Your task to perform on an android device: Search for the best rated 150-piece drill bit set on Aliexpress. Image 0: 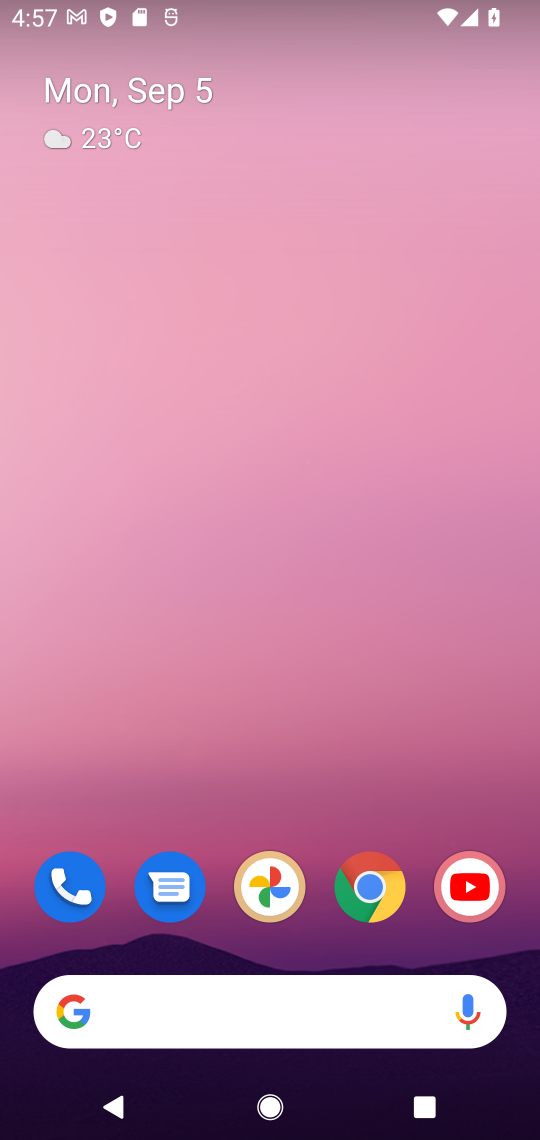
Step 0: drag from (273, 991) to (200, 298)
Your task to perform on an android device: Search for the best rated 150-piece drill bit set on Aliexpress. Image 1: 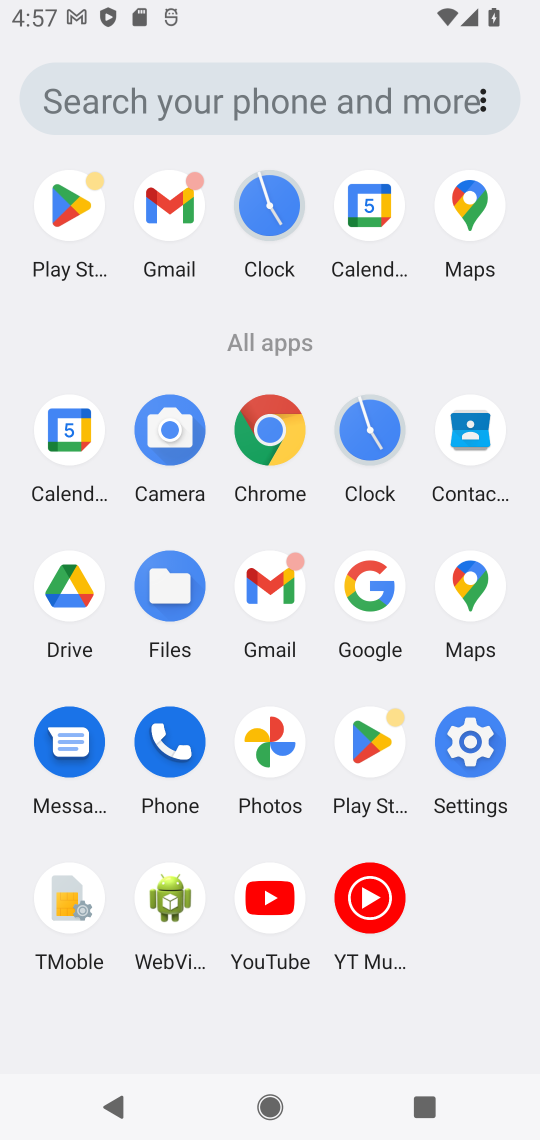
Step 1: click (362, 597)
Your task to perform on an android device: Search for the best rated 150-piece drill bit set on Aliexpress. Image 2: 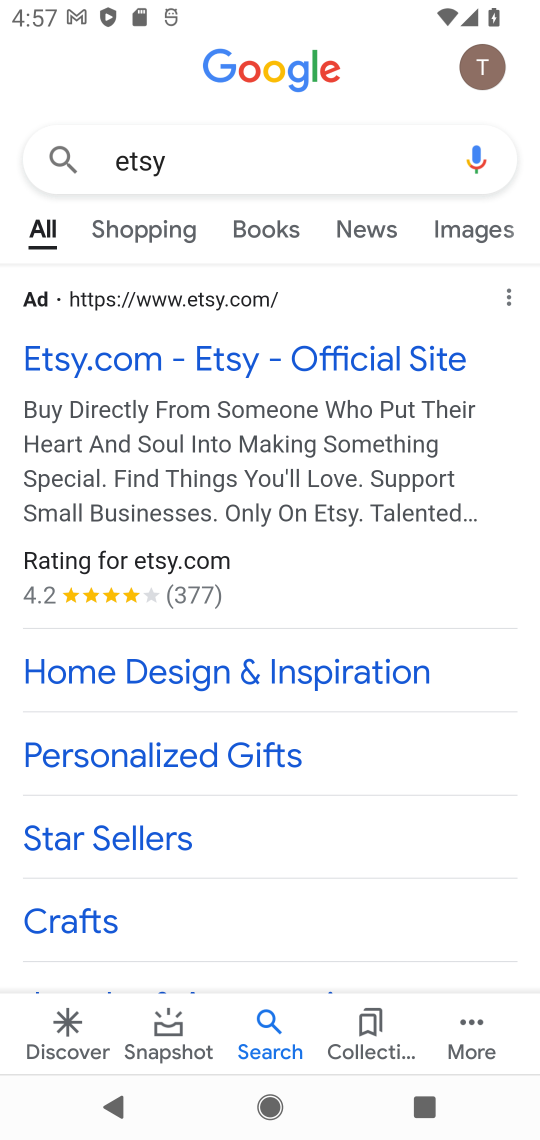
Step 2: click (184, 159)
Your task to perform on an android device: Search for the best rated 150-piece drill bit set on Aliexpress. Image 3: 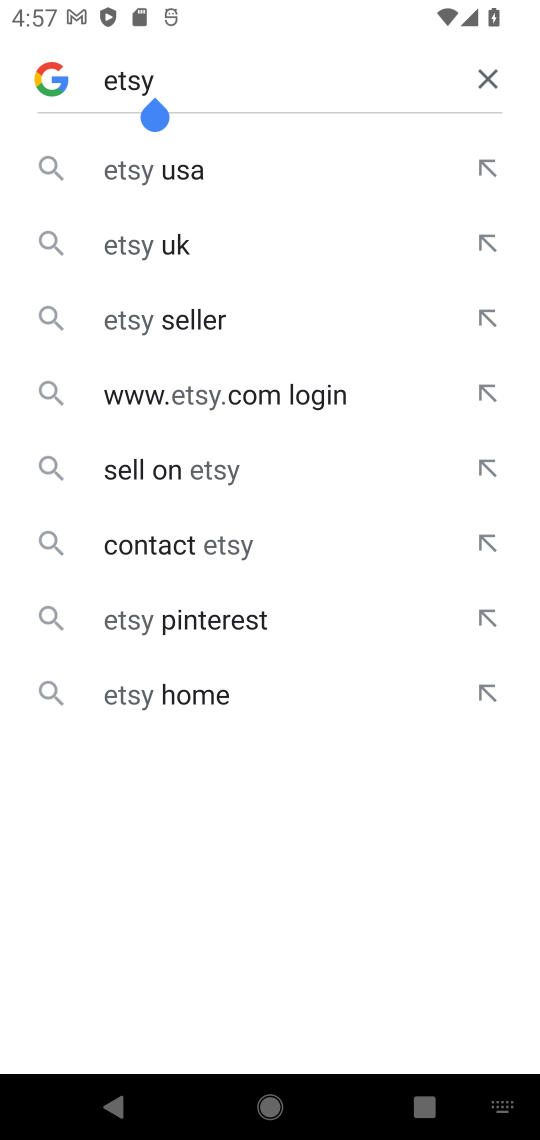
Step 3: click (494, 80)
Your task to perform on an android device: Search for the best rated 150-piece drill bit set on Aliexpress. Image 4: 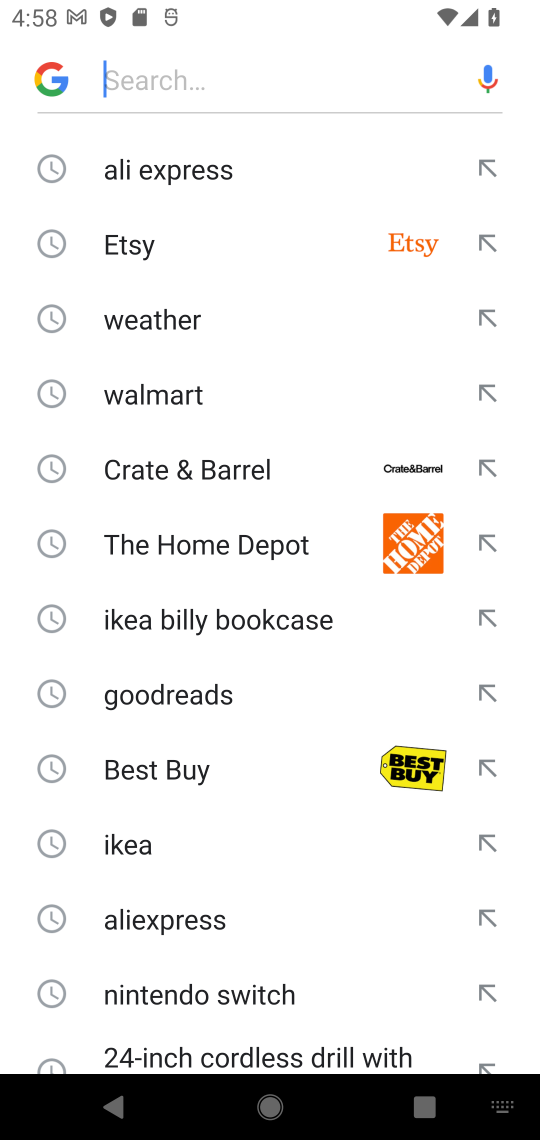
Step 4: type "Aliexpress"
Your task to perform on an android device: Search for the best rated 150-piece drill bit set on Aliexpress. Image 5: 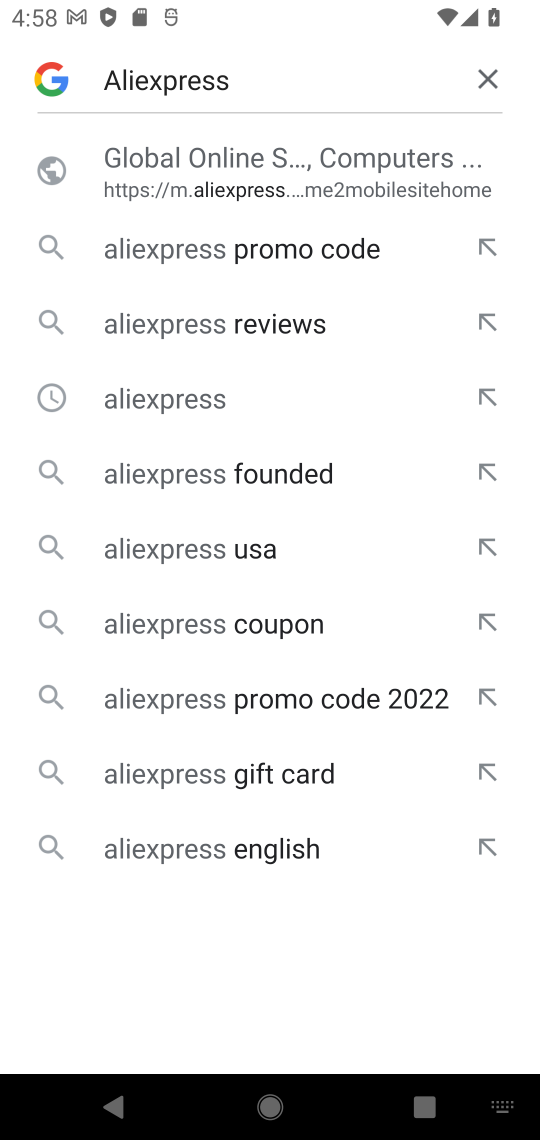
Step 5: click (170, 407)
Your task to perform on an android device: Search for the best rated 150-piece drill bit set on Aliexpress. Image 6: 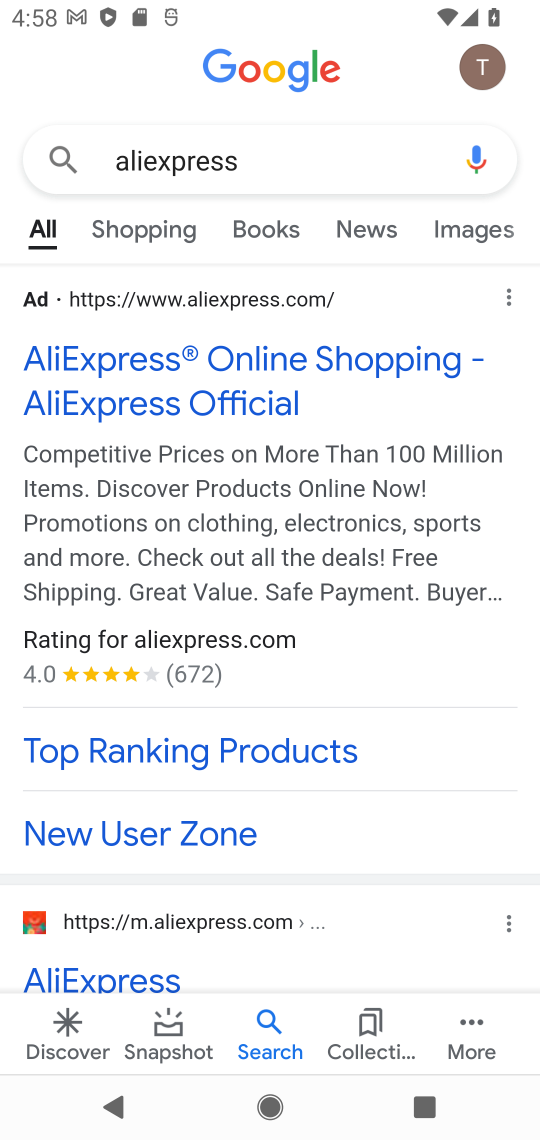
Step 6: click (205, 390)
Your task to perform on an android device: Search for the best rated 150-piece drill bit set on Aliexpress. Image 7: 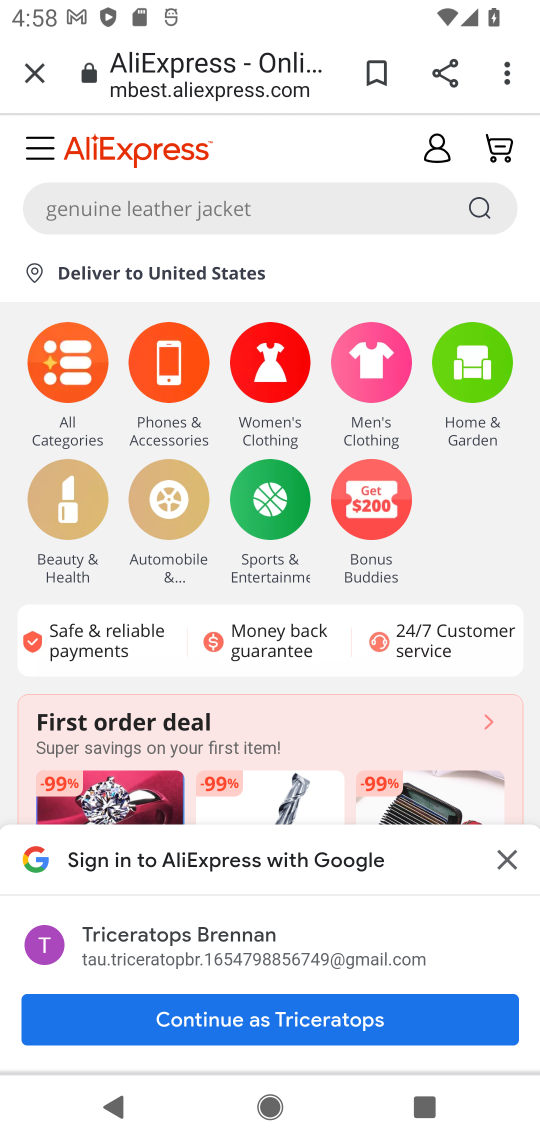
Step 7: click (119, 223)
Your task to perform on an android device: Search for the best rated 150-piece drill bit set on Aliexpress. Image 8: 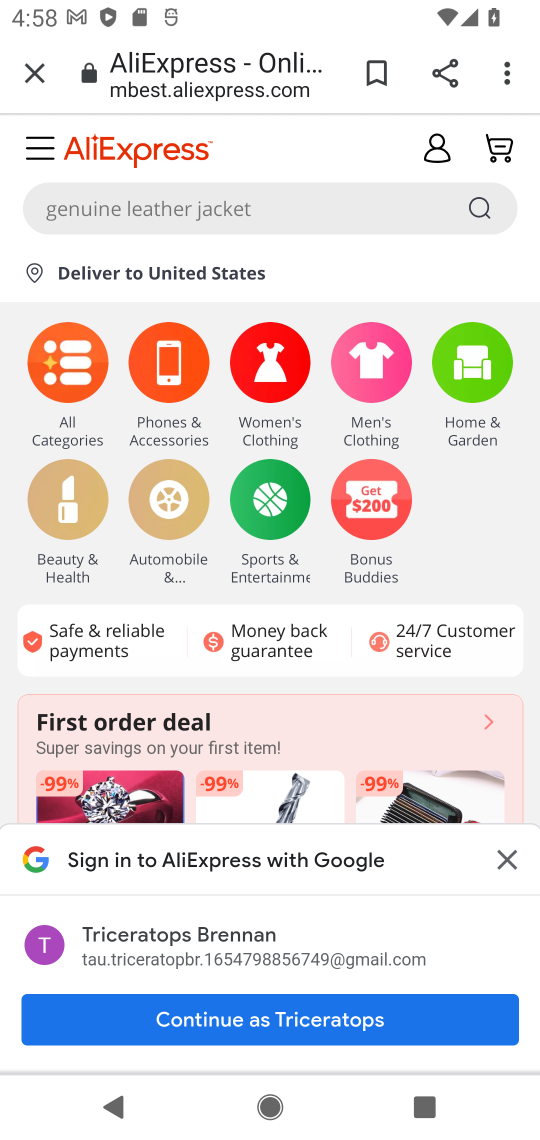
Step 8: click (474, 213)
Your task to perform on an android device: Search for the best rated 150-piece drill bit set on Aliexpress. Image 9: 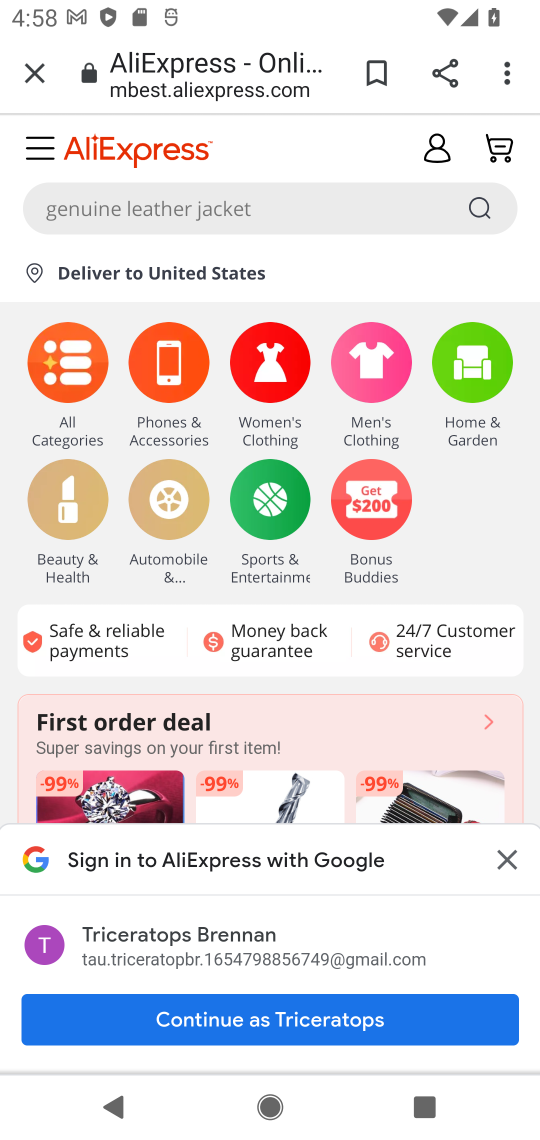
Step 9: click (489, 202)
Your task to perform on an android device: Search for the best rated 150-piece drill bit set on Aliexpress. Image 10: 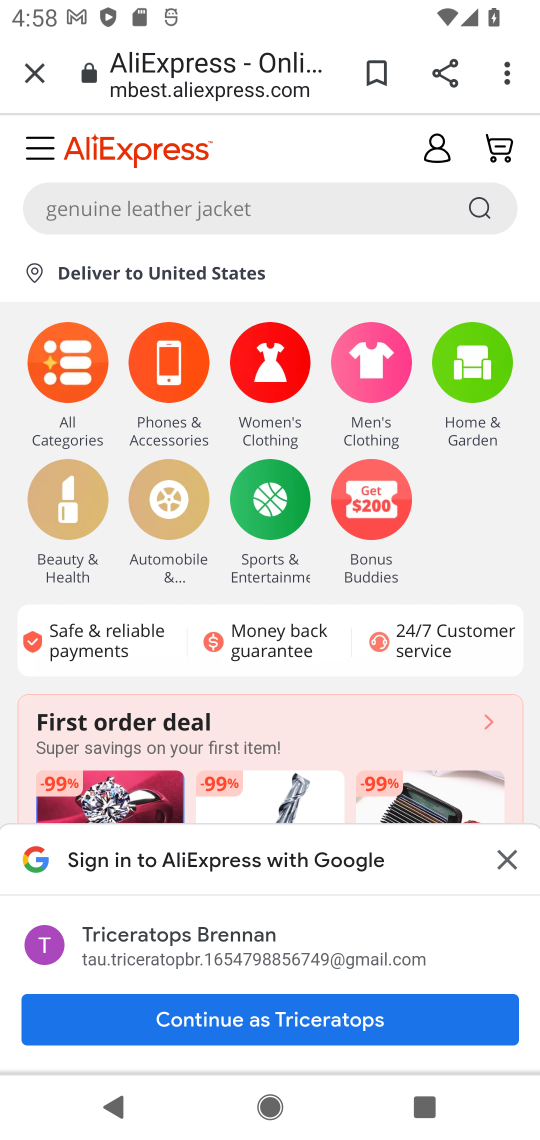
Step 10: click (479, 211)
Your task to perform on an android device: Search for the best rated 150-piece drill bit set on Aliexpress. Image 11: 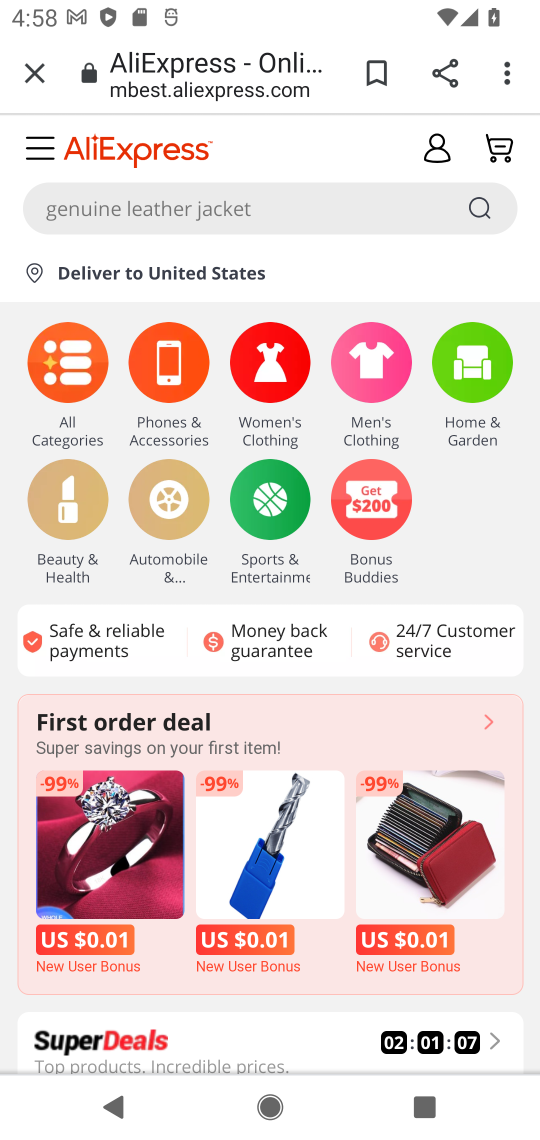
Step 11: type "best rated 150-piece drill bit set "
Your task to perform on an android device: Search for the best rated 150-piece drill bit set on Aliexpress. Image 12: 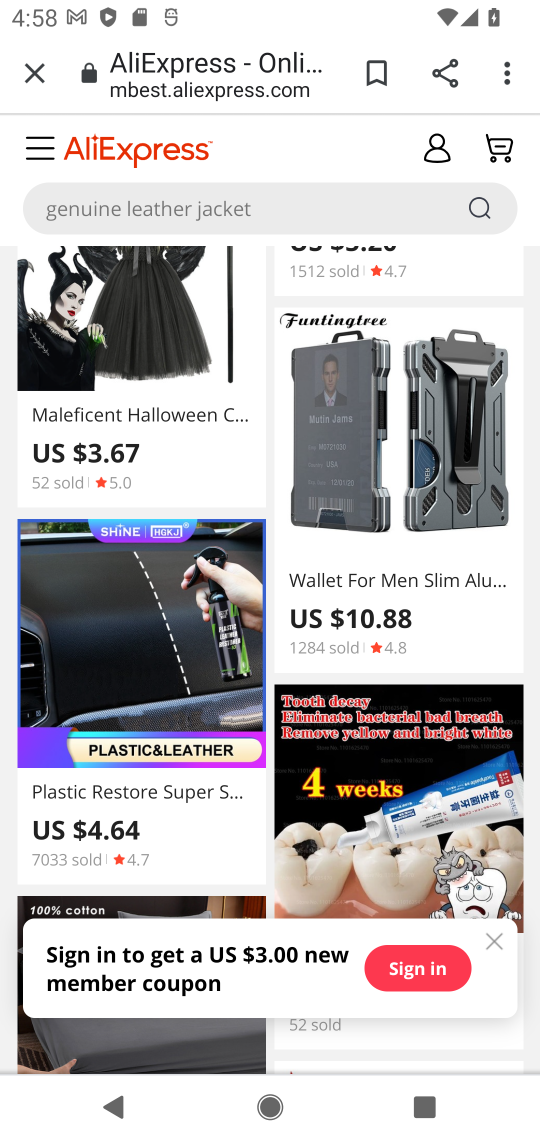
Step 12: click (477, 207)
Your task to perform on an android device: Search for the best rated 150-piece drill bit set on Aliexpress. Image 13: 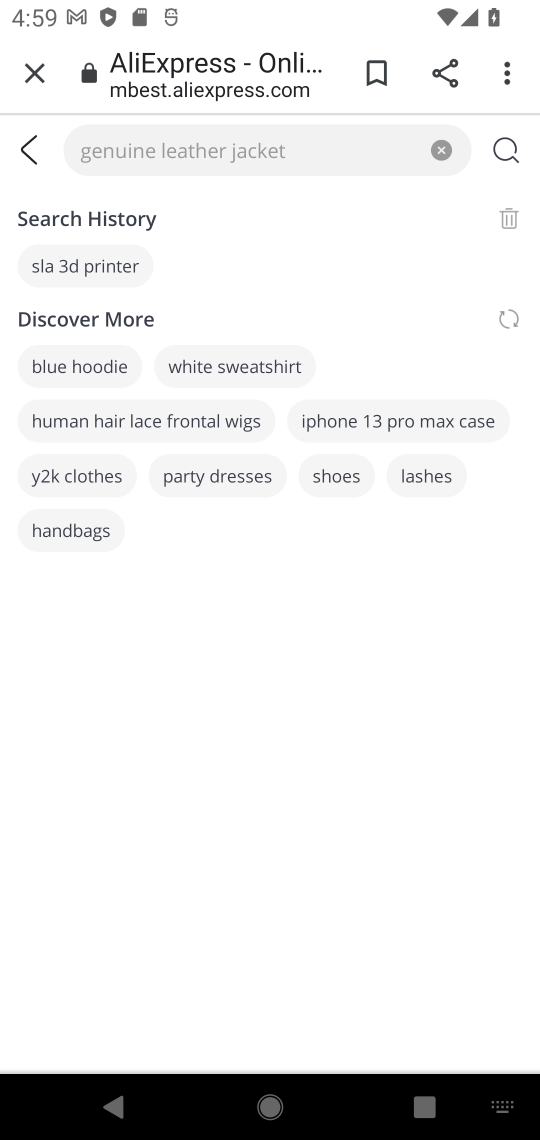
Step 13: type "best rated 150-piece drill bit set "
Your task to perform on an android device: Search for the best rated 150-piece drill bit set on Aliexpress. Image 14: 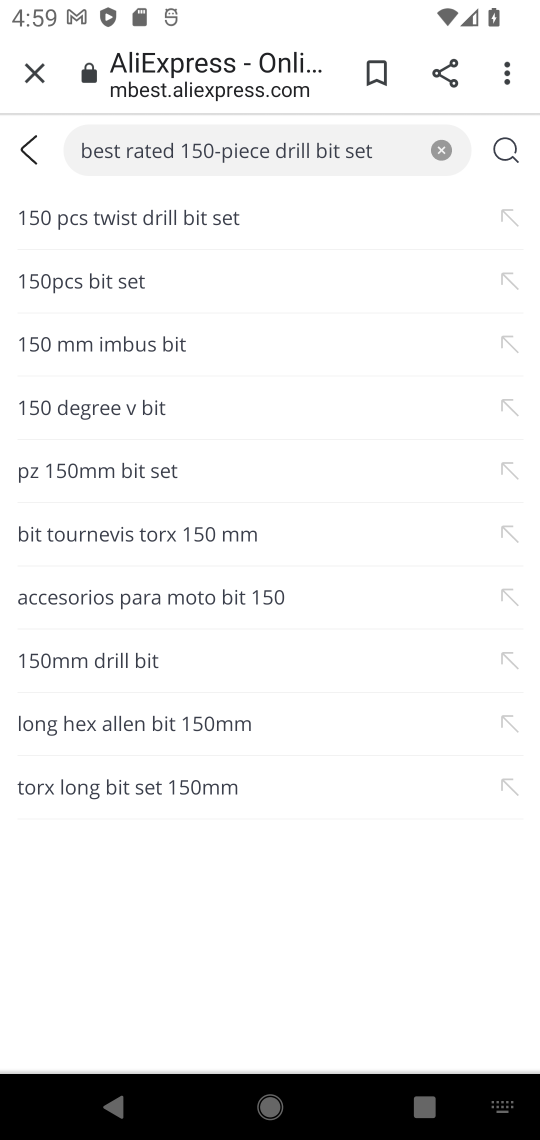
Step 14: click (84, 206)
Your task to perform on an android device: Search for the best rated 150-piece drill bit set on Aliexpress. Image 15: 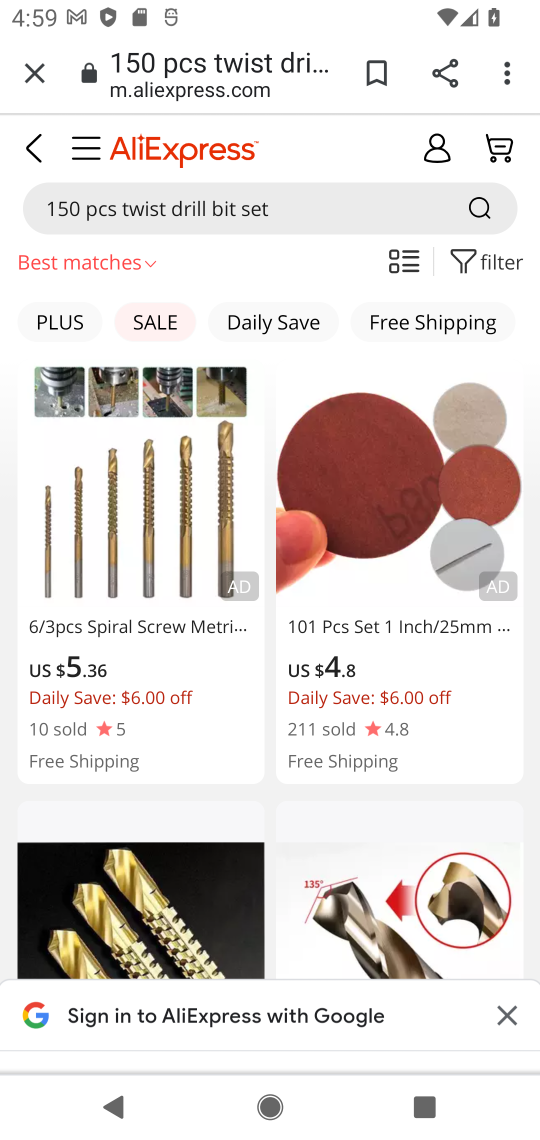
Step 15: task complete